Your task to perform on an android device: When is my next meeting? Image 0: 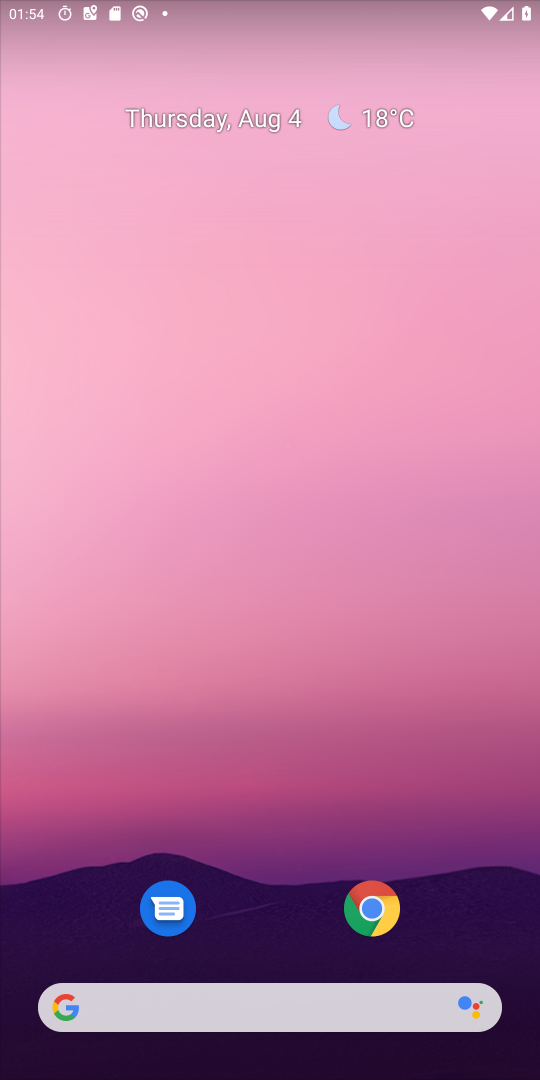
Step 0: press home button
Your task to perform on an android device: When is my next meeting? Image 1: 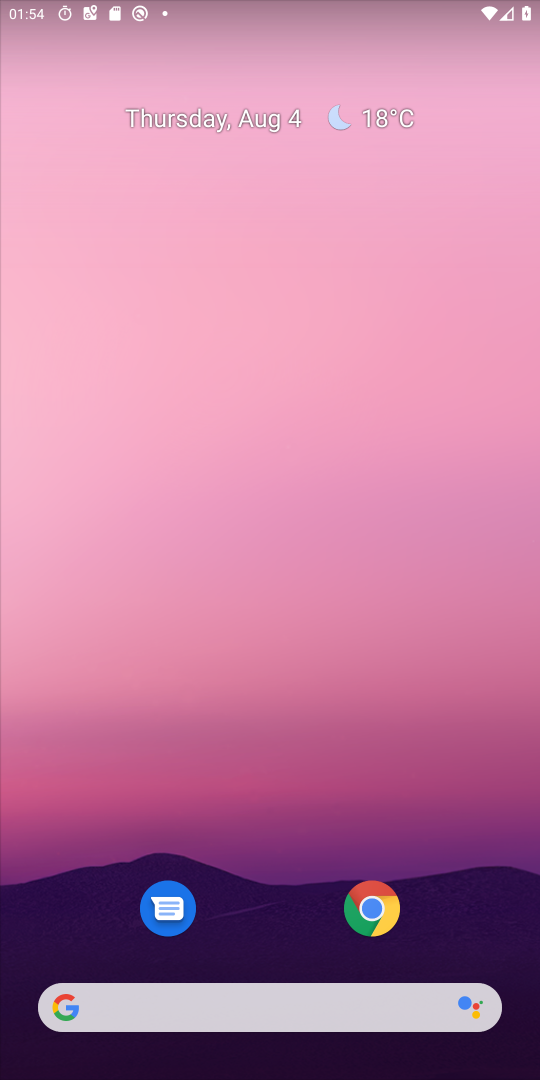
Step 1: drag from (300, 1034) to (210, 231)
Your task to perform on an android device: When is my next meeting? Image 2: 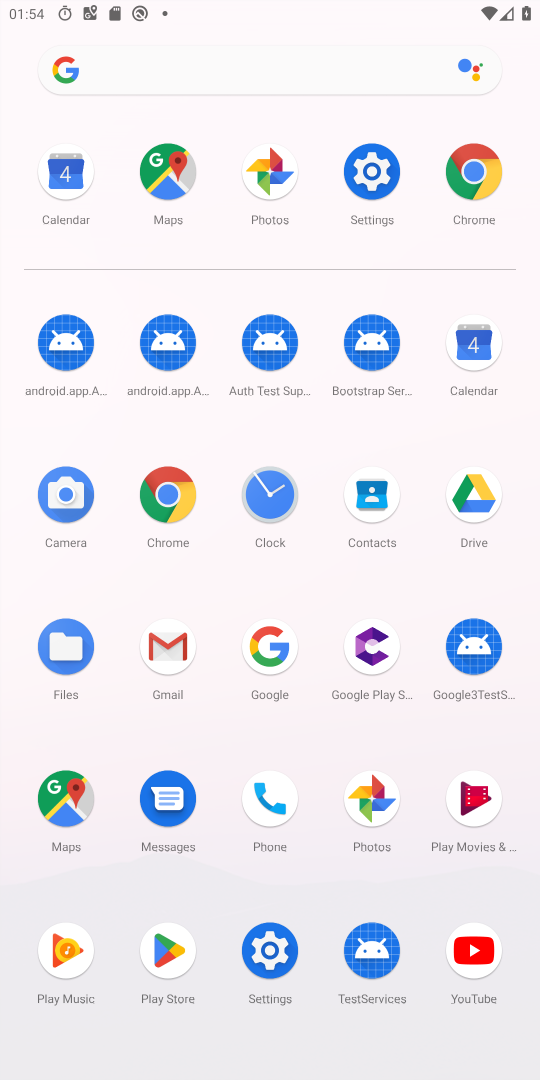
Step 2: click (453, 358)
Your task to perform on an android device: When is my next meeting? Image 3: 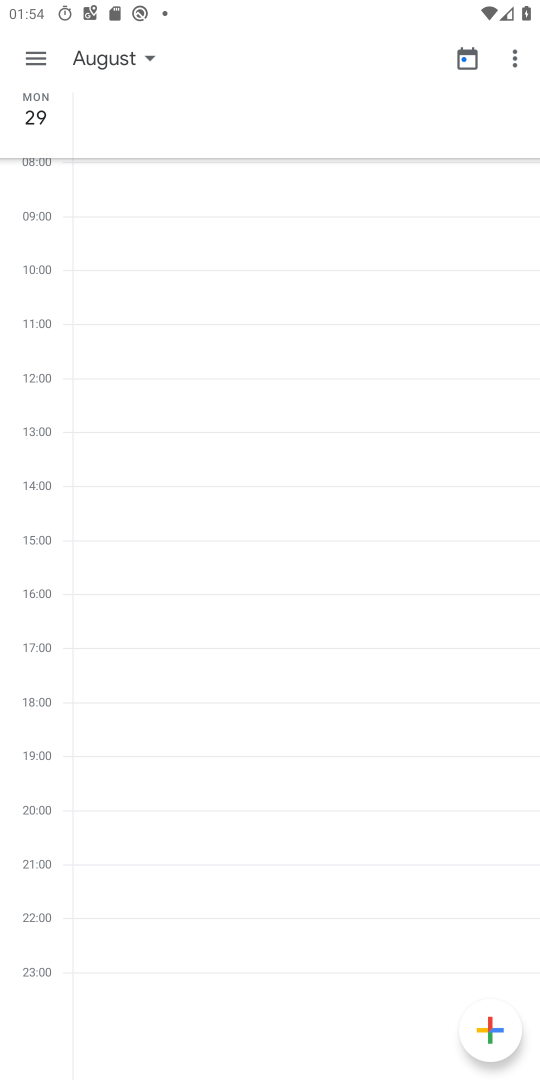
Step 3: click (43, 69)
Your task to perform on an android device: When is my next meeting? Image 4: 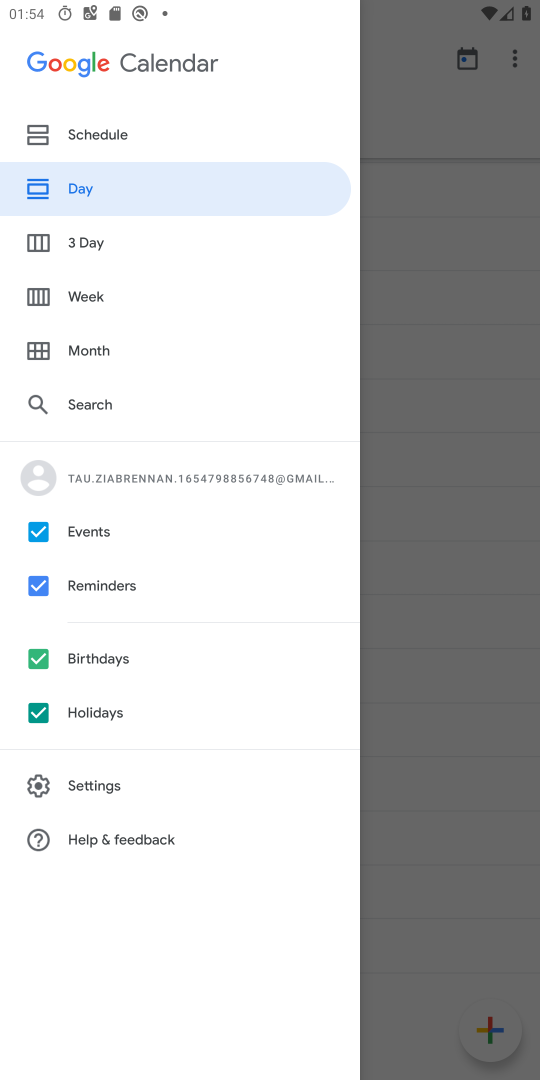
Step 4: click (96, 341)
Your task to perform on an android device: When is my next meeting? Image 5: 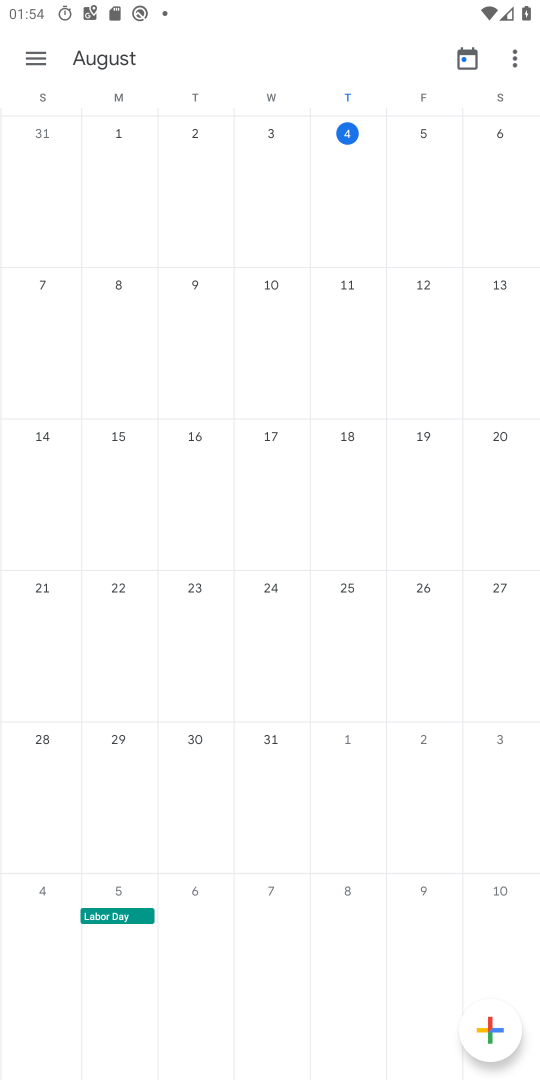
Step 5: click (363, 181)
Your task to perform on an android device: When is my next meeting? Image 6: 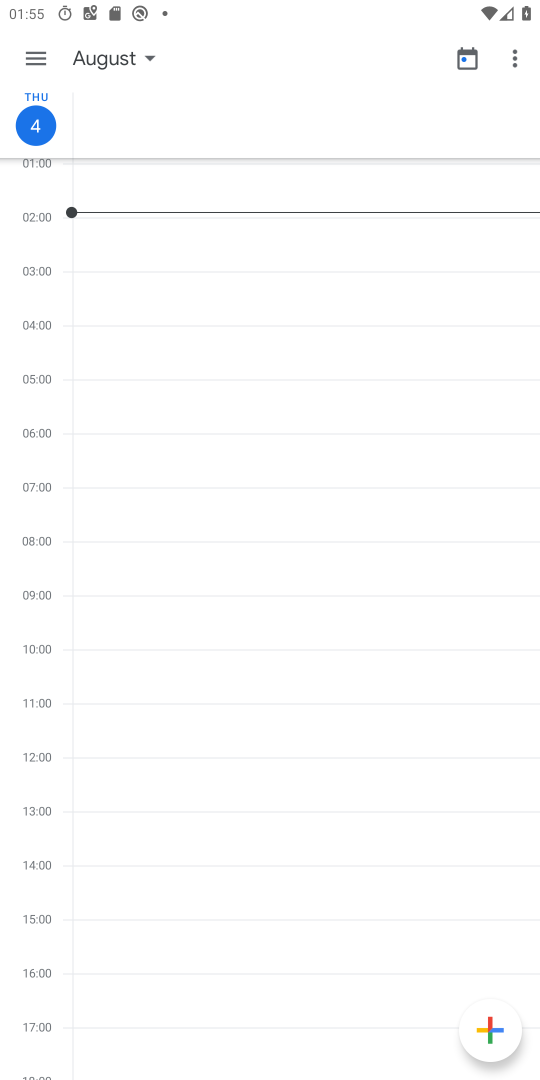
Step 6: click (49, 118)
Your task to perform on an android device: When is my next meeting? Image 7: 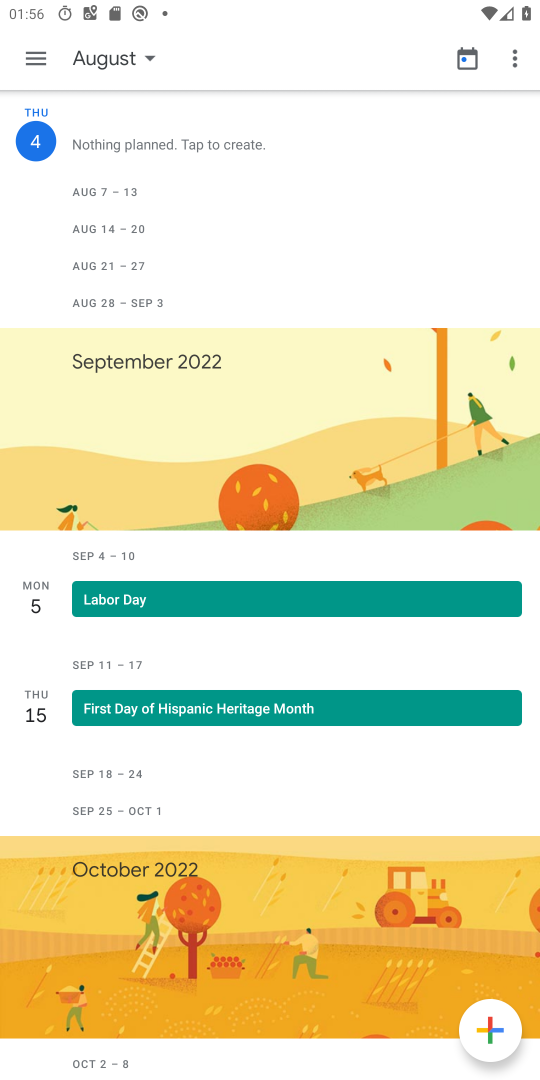
Step 7: task complete